Your task to perform on an android device: Turn on the flashlight Image 0: 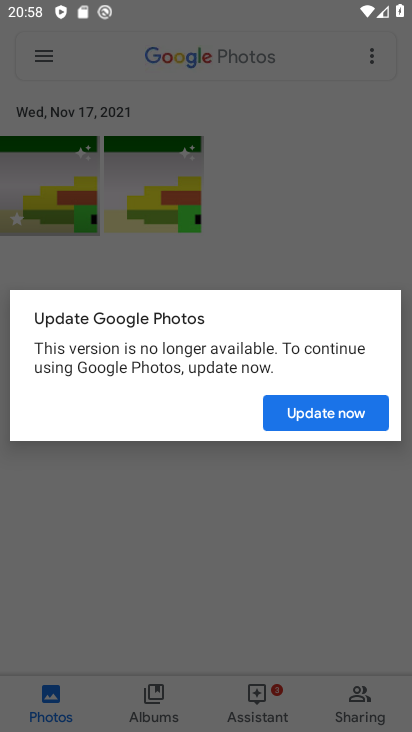
Step 0: press back button
Your task to perform on an android device: Turn on the flashlight Image 1: 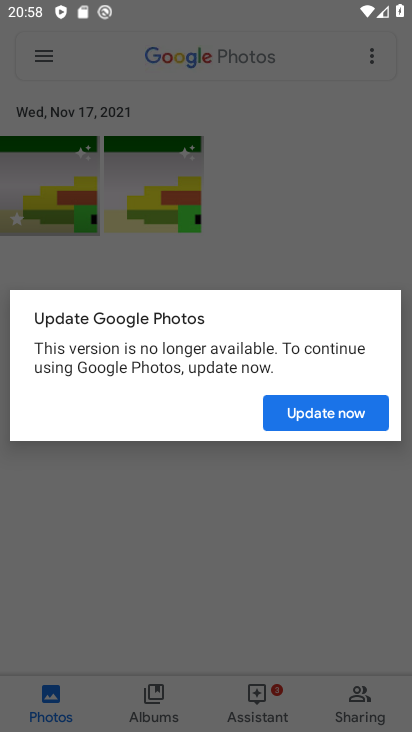
Step 1: press home button
Your task to perform on an android device: Turn on the flashlight Image 2: 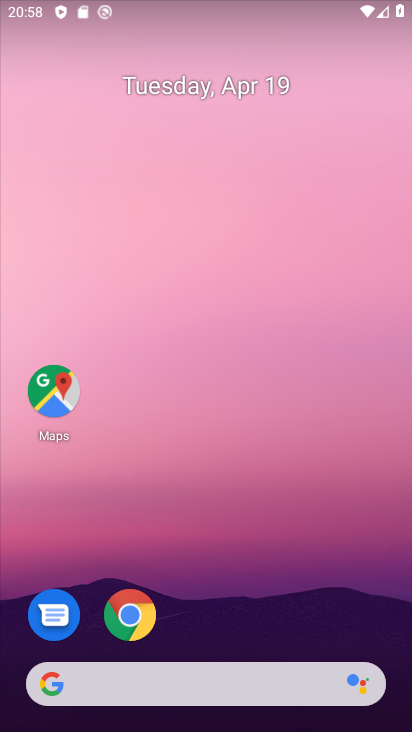
Step 2: drag from (209, 8) to (200, 427)
Your task to perform on an android device: Turn on the flashlight Image 3: 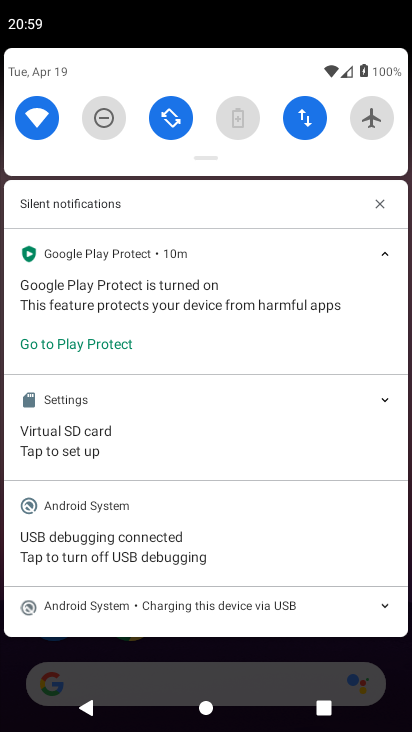
Step 3: drag from (290, 255) to (276, 456)
Your task to perform on an android device: Turn on the flashlight Image 4: 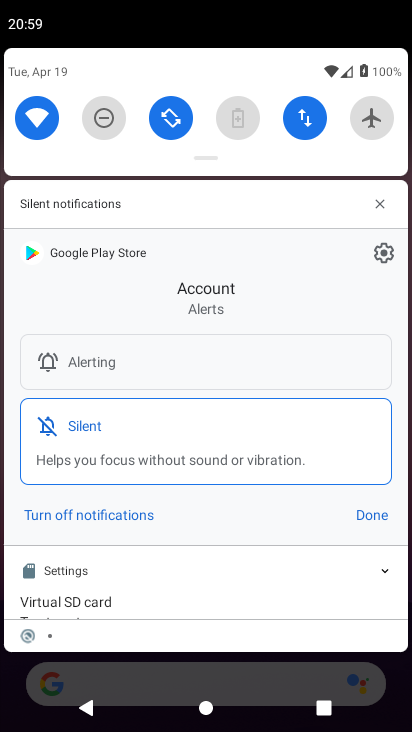
Step 4: drag from (265, 129) to (202, 566)
Your task to perform on an android device: Turn on the flashlight Image 5: 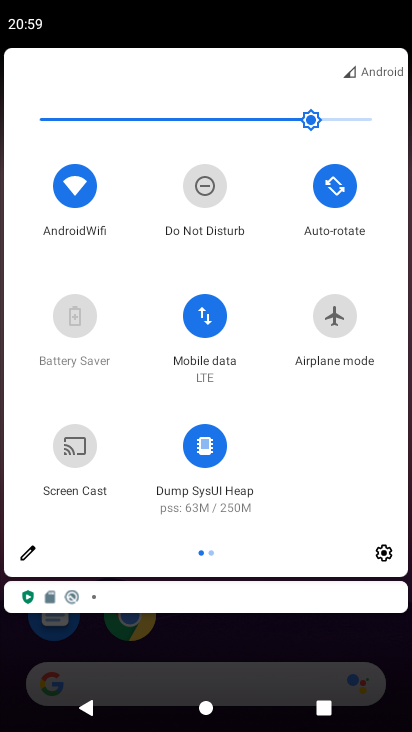
Step 5: drag from (317, 421) to (11, 405)
Your task to perform on an android device: Turn on the flashlight Image 6: 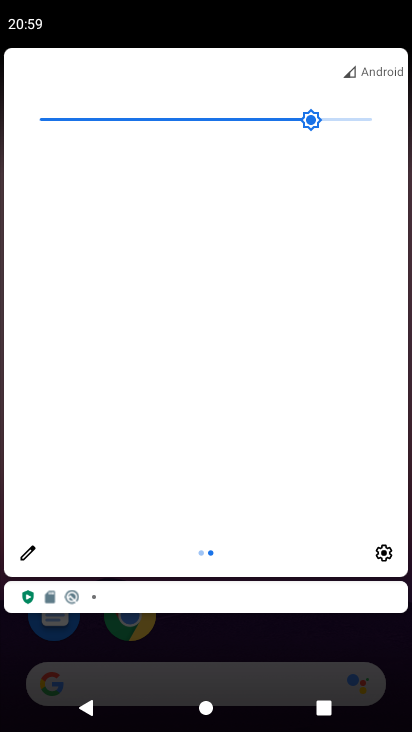
Step 6: click (32, 551)
Your task to perform on an android device: Turn on the flashlight Image 7: 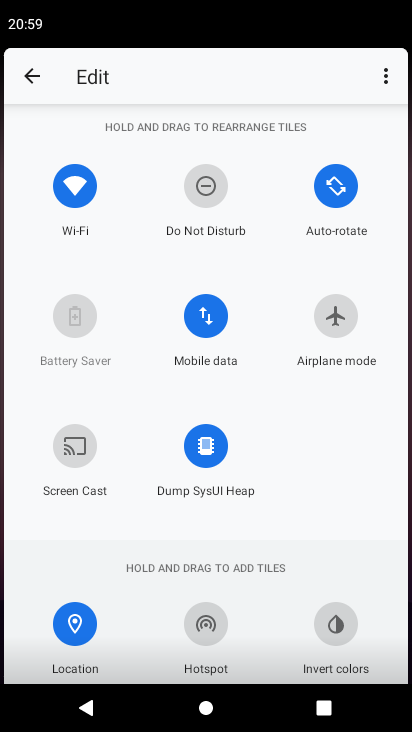
Step 7: task complete